Your task to perform on an android device: Do I have any events today? Image 0: 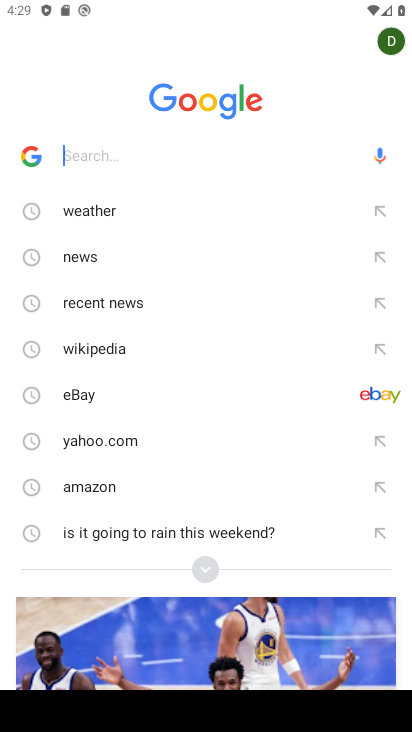
Step 0: press home button
Your task to perform on an android device: Do I have any events today? Image 1: 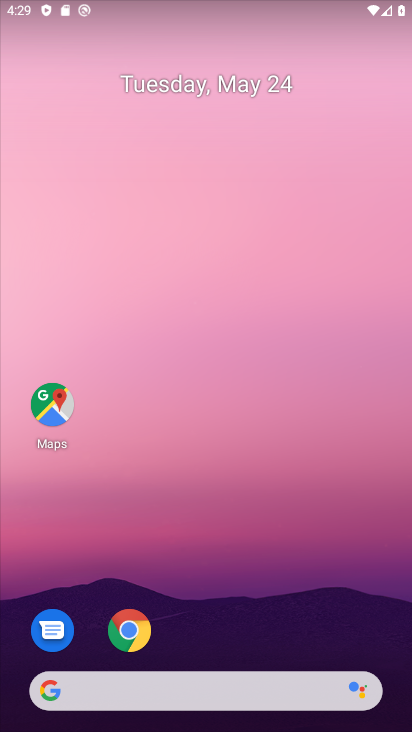
Step 1: click (193, 71)
Your task to perform on an android device: Do I have any events today? Image 2: 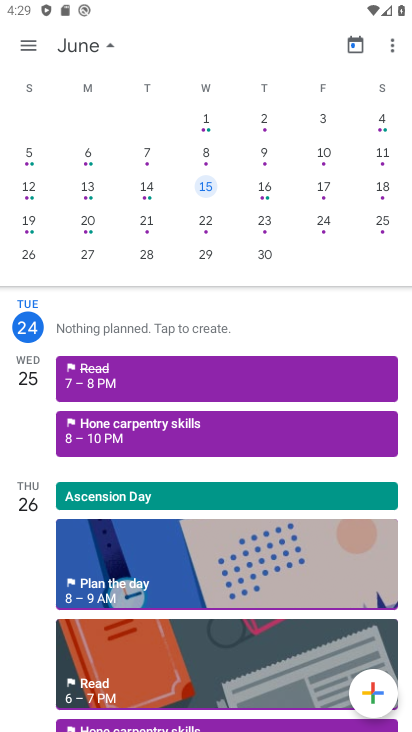
Step 2: task complete